Your task to perform on an android device: Turn off the flashlight Image 0: 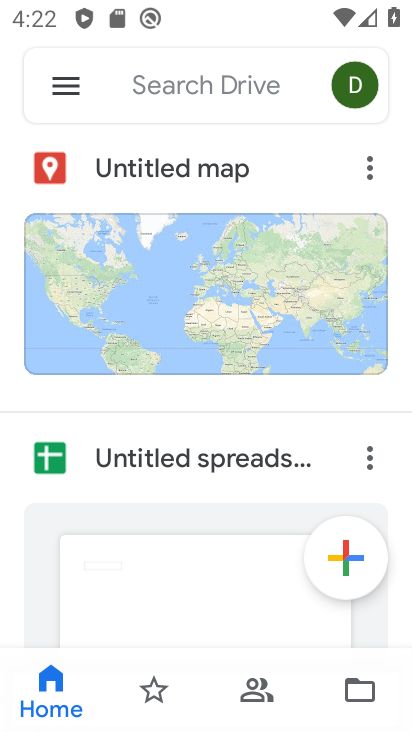
Step 0: press home button
Your task to perform on an android device: Turn off the flashlight Image 1: 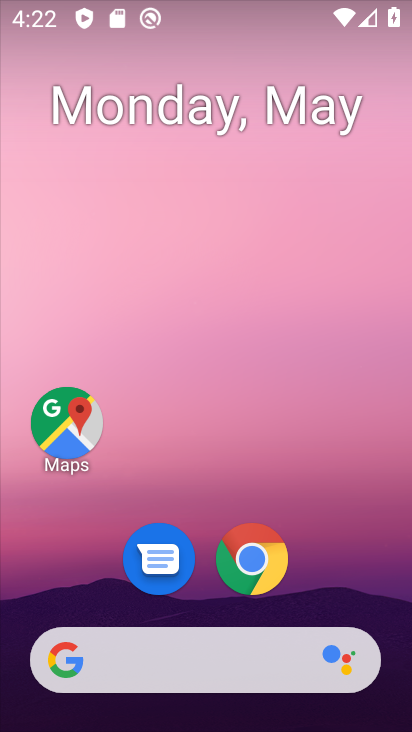
Step 1: drag from (263, 607) to (261, 34)
Your task to perform on an android device: Turn off the flashlight Image 2: 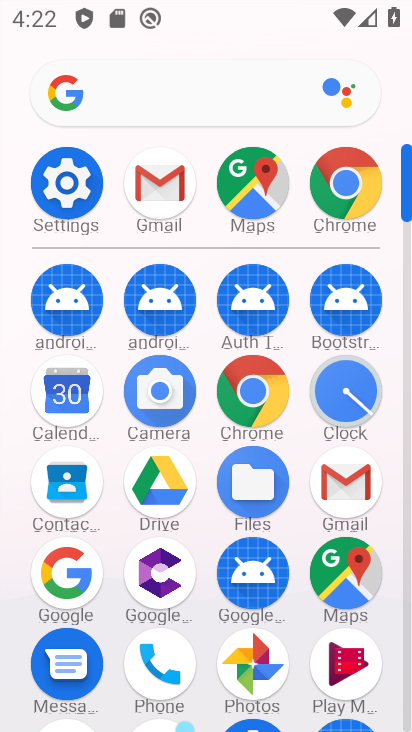
Step 2: click (79, 196)
Your task to perform on an android device: Turn off the flashlight Image 3: 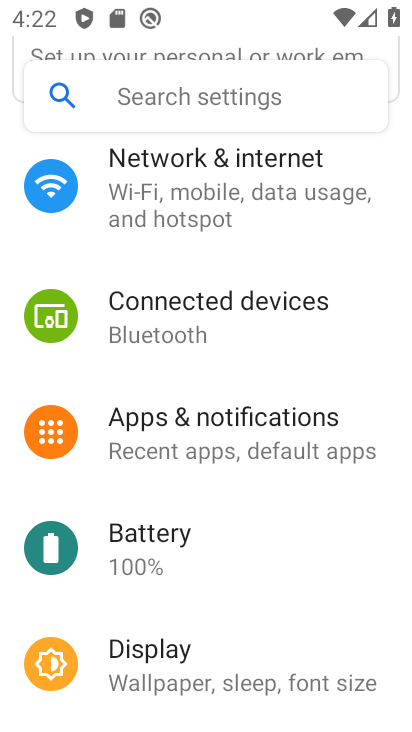
Step 3: task complete